Your task to perform on an android device: Open ESPN.com Image 0: 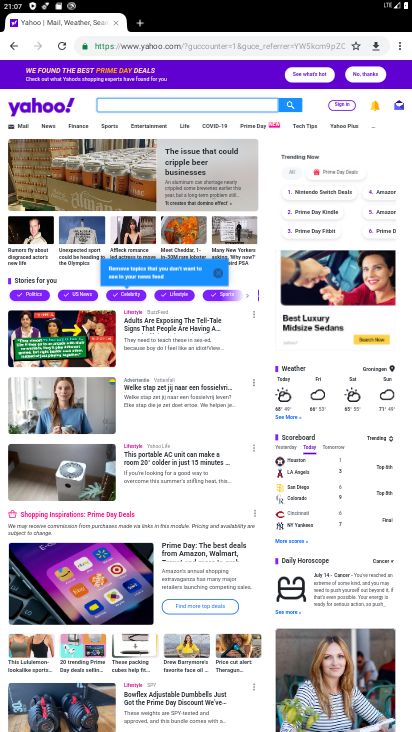
Step 0: click (145, 40)
Your task to perform on an android device: Open ESPN.com Image 1: 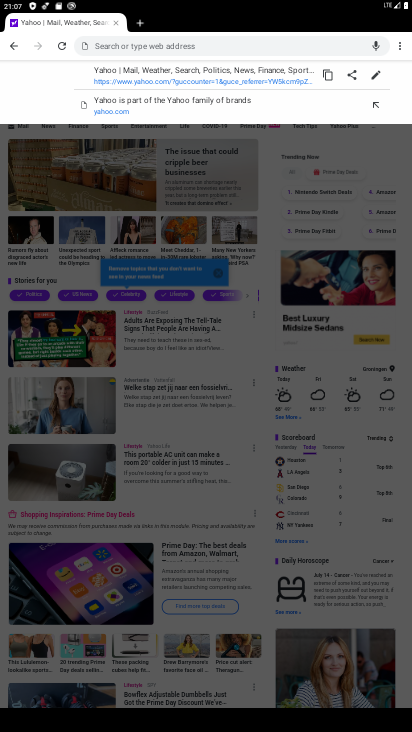
Step 1: type "espn.com"
Your task to perform on an android device: Open ESPN.com Image 2: 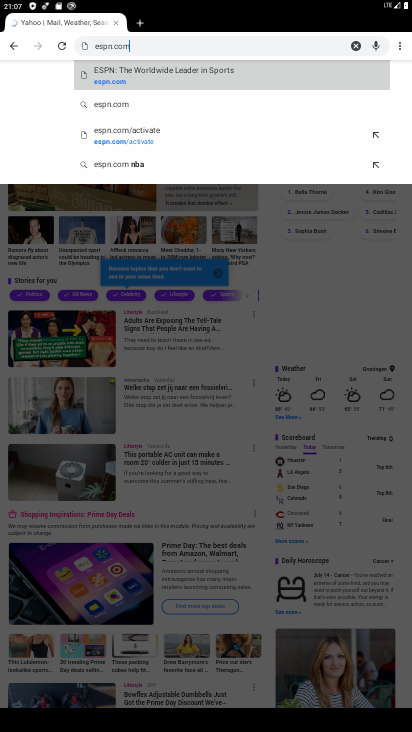
Step 2: click (143, 77)
Your task to perform on an android device: Open ESPN.com Image 3: 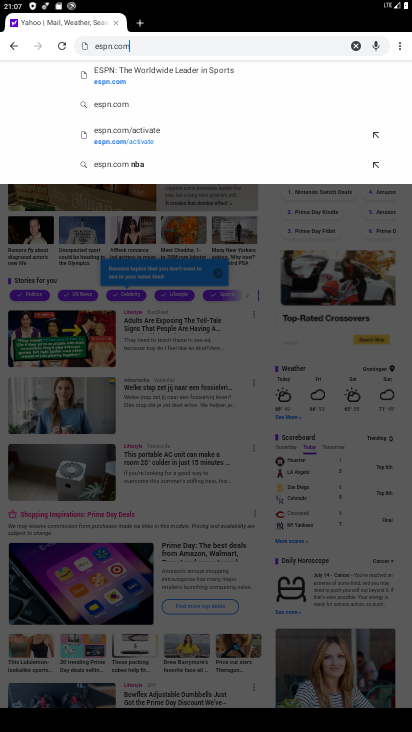
Step 3: click (104, 82)
Your task to perform on an android device: Open ESPN.com Image 4: 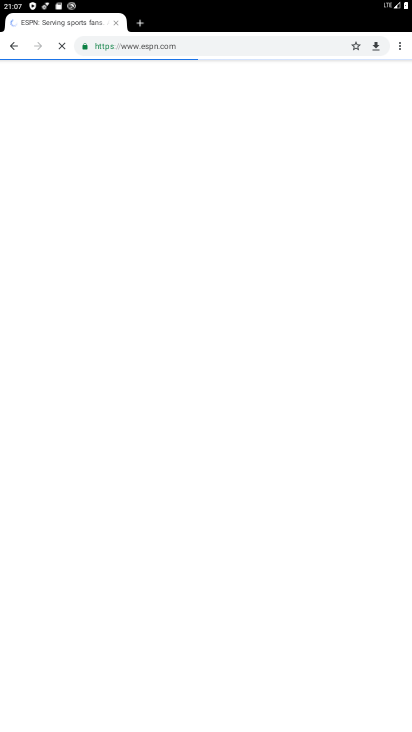
Step 4: task complete